Your task to perform on an android device: turn off notifications in google photos Image 0: 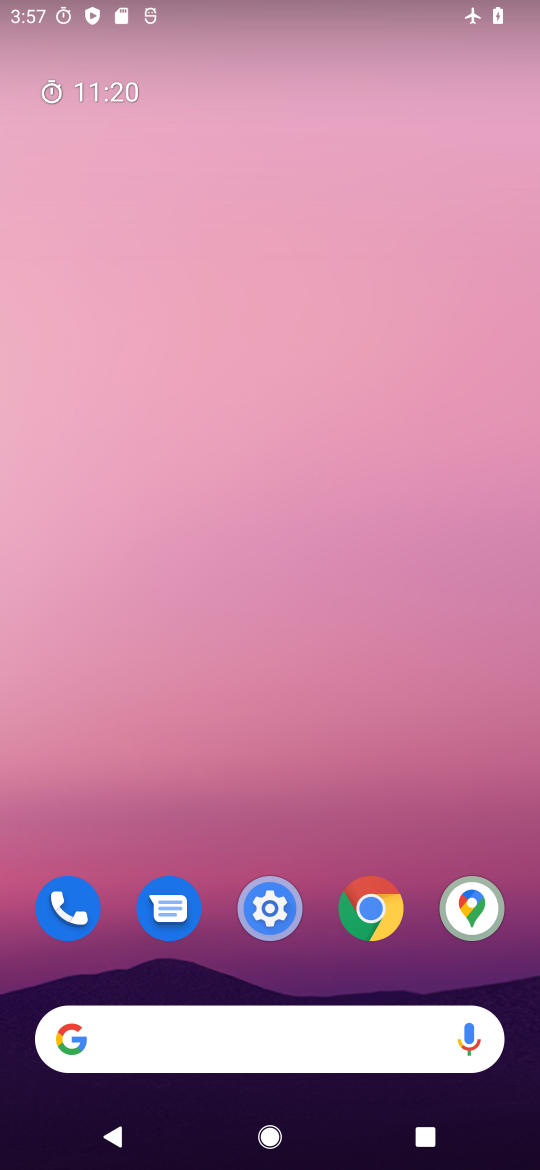
Step 0: click (266, 900)
Your task to perform on an android device: turn off notifications in google photos Image 1: 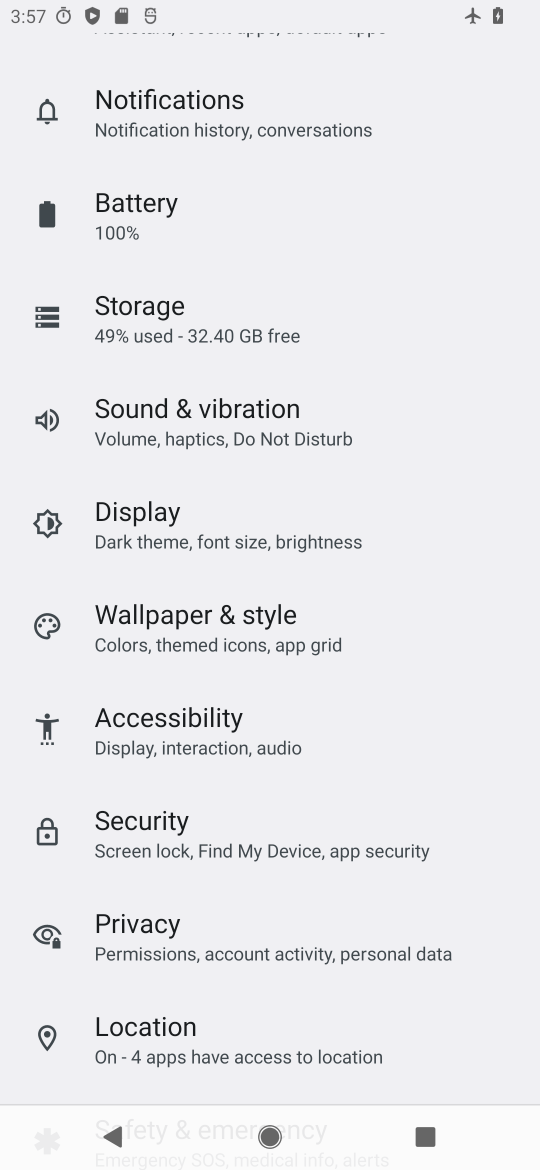
Step 1: press home button
Your task to perform on an android device: turn off notifications in google photos Image 2: 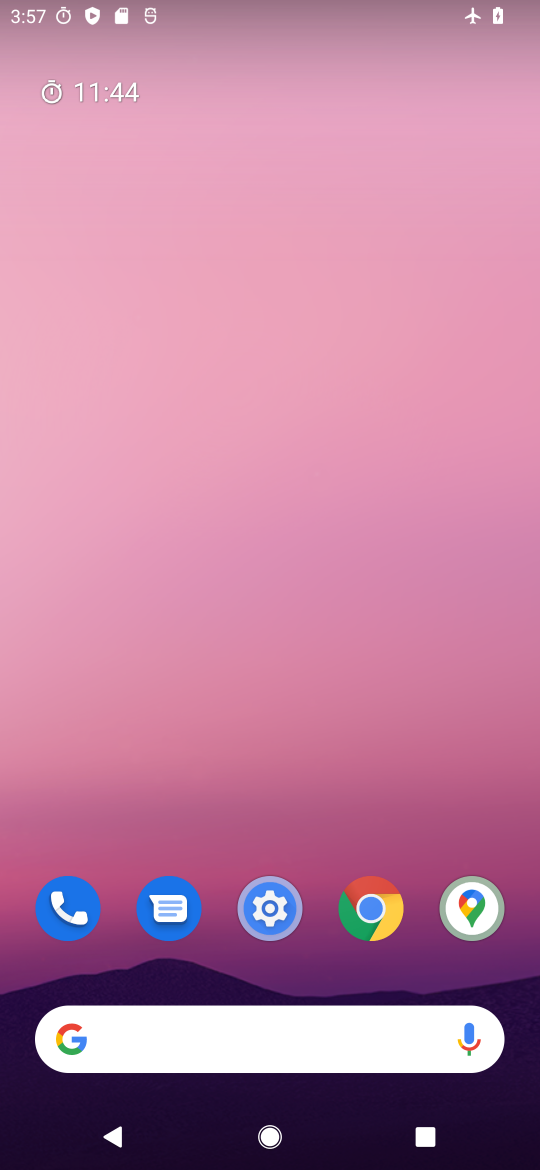
Step 2: drag from (304, 836) to (328, 5)
Your task to perform on an android device: turn off notifications in google photos Image 3: 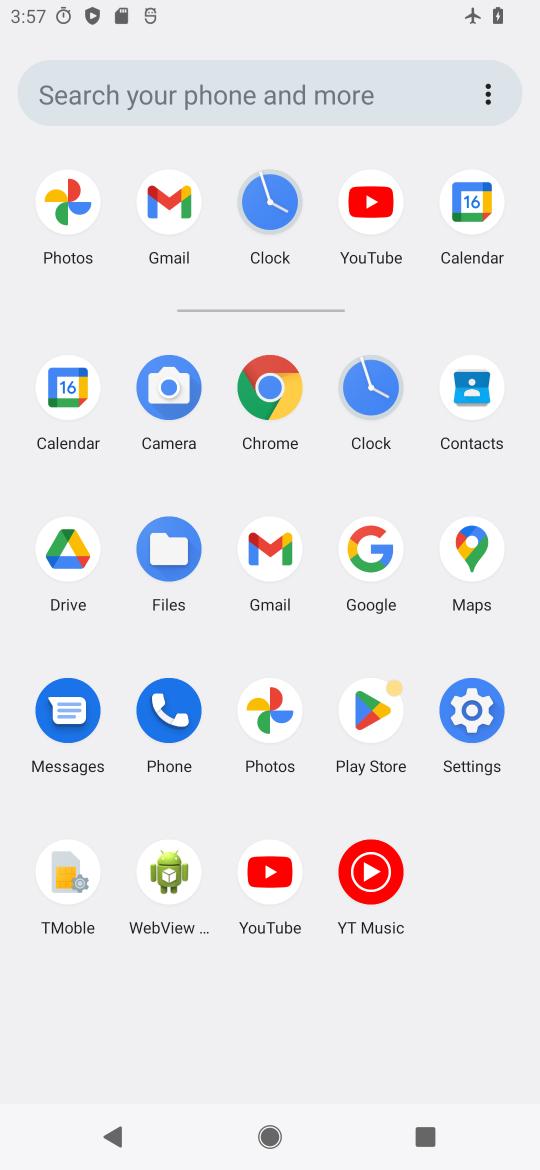
Step 3: click (271, 693)
Your task to perform on an android device: turn off notifications in google photos Image 4: 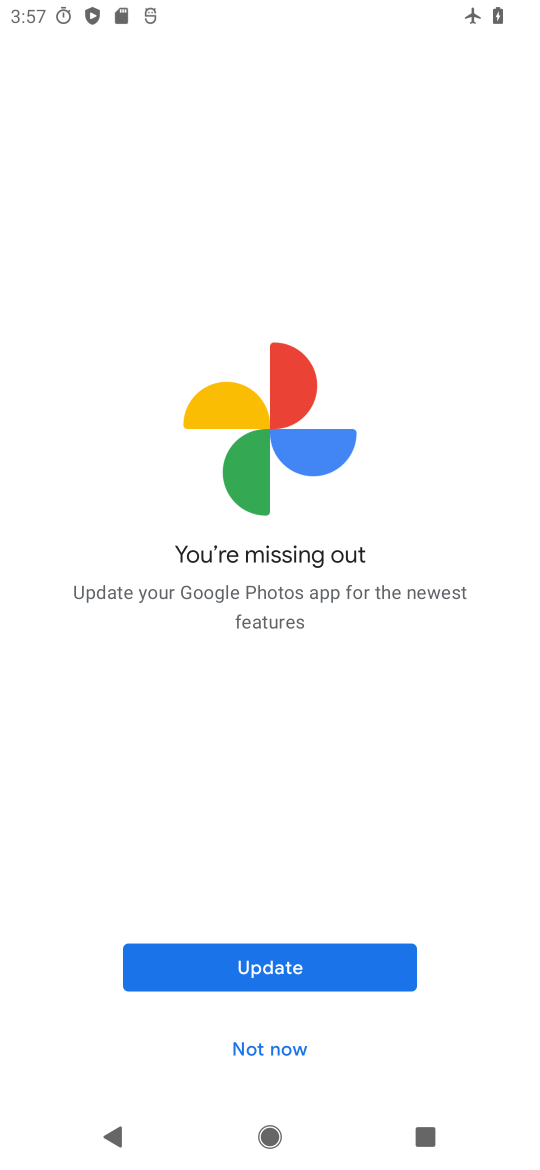
Step 4: click (272, 1047)
Your task to perform on an android device: turn off notifications in google photos Image 5: 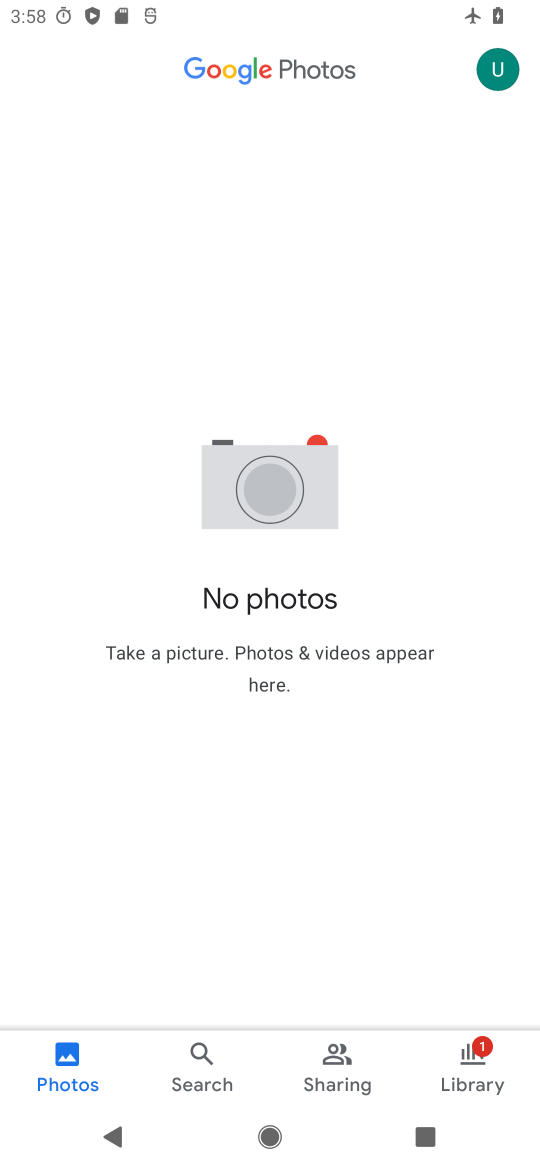
Step 5: click (498, 68)
Your task to perform on an android device: turn off notifications in google photos Image 6: 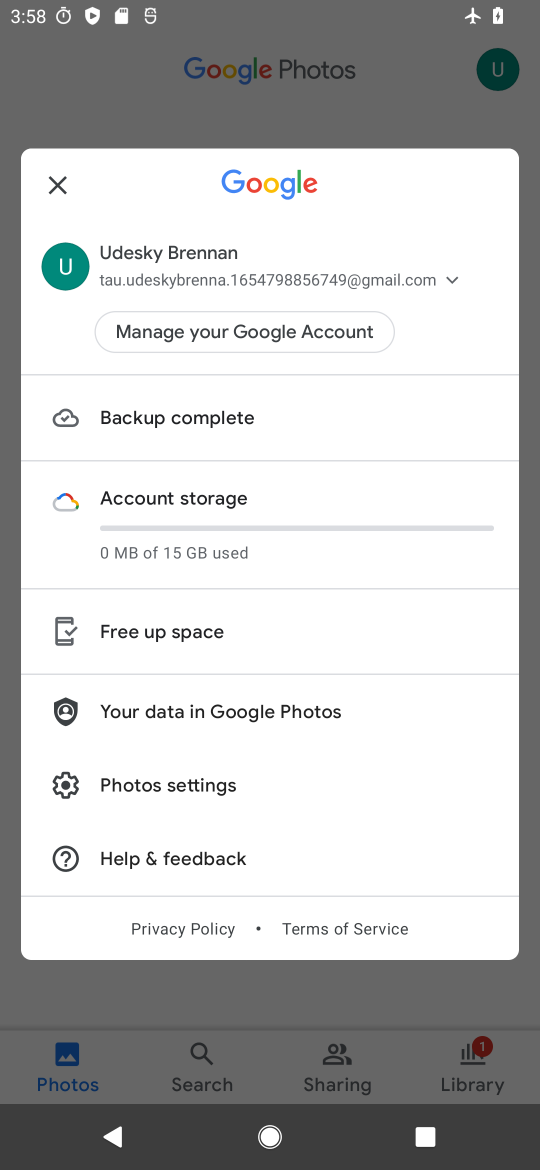
Step 6: click (170, 777)
Your task to perform on an android device: turn off notifications in google photos Image 7: 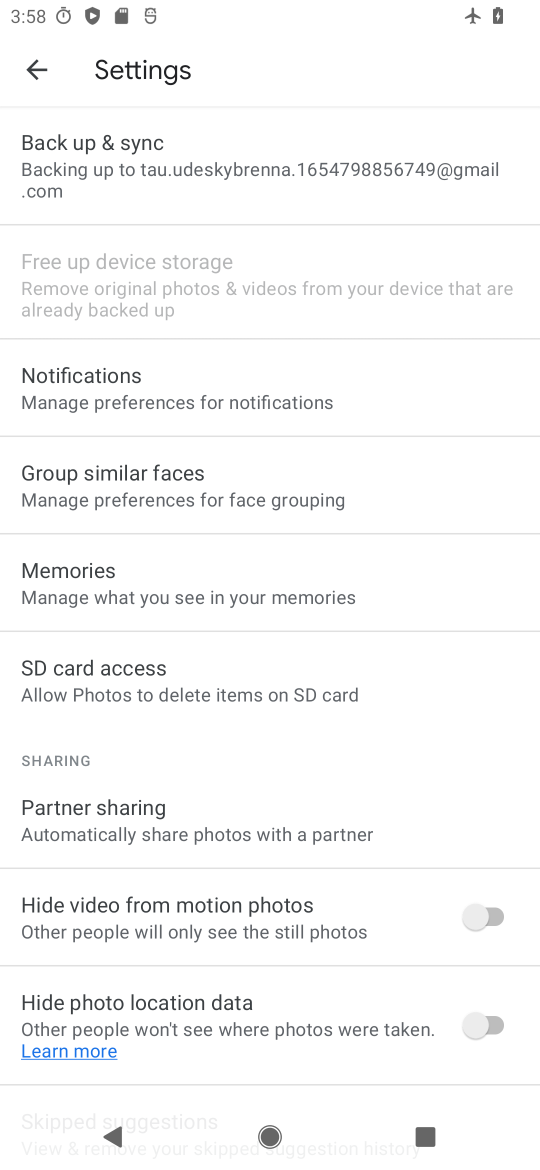
Step 7: click (120, 380)
Your task to perform on an android device: turn off notifications in google photos Image 8: 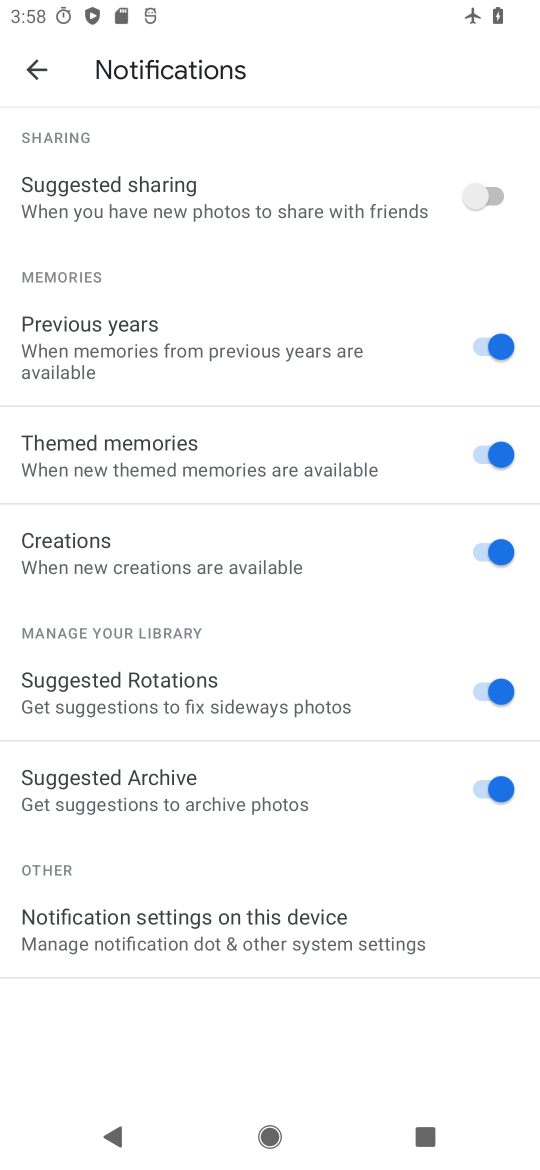
Step 8: click (237, 926)
Your task to perform on an android device: turn off notifications in google photos Image 9: 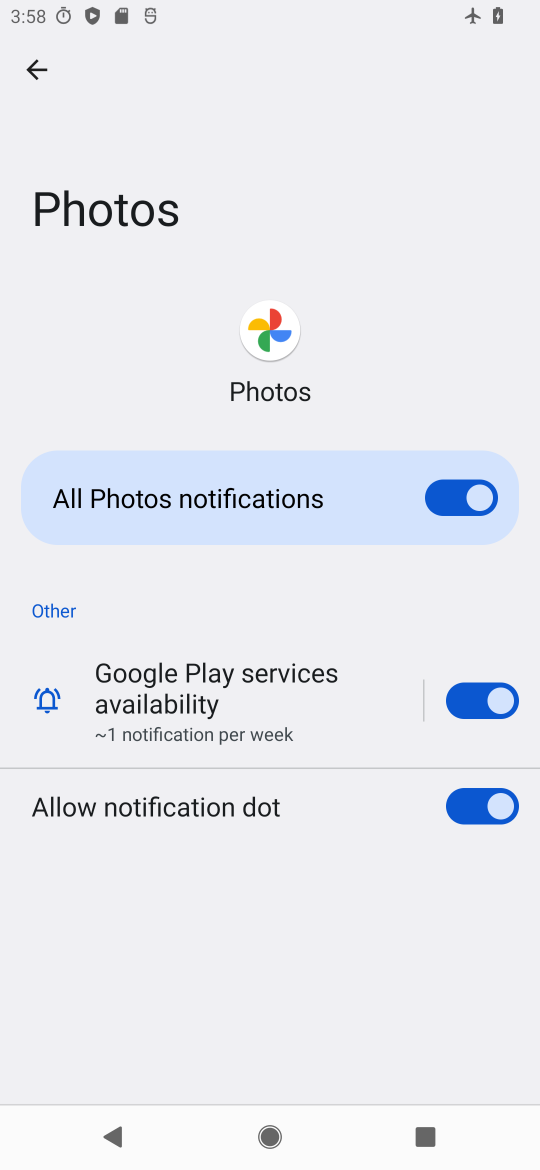
Step 9: click (456, 482)
Your task to perform on an android device: turn off notifications in google photos Image 10: 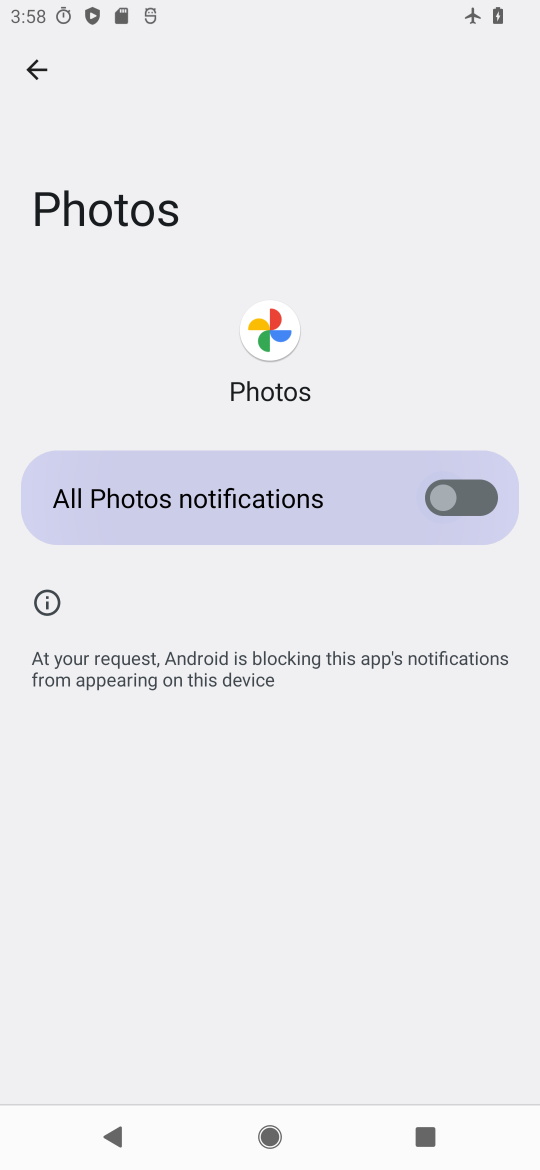
Step 10: task complete